Your task to perform on an android device: Open CNN.com Image 0: 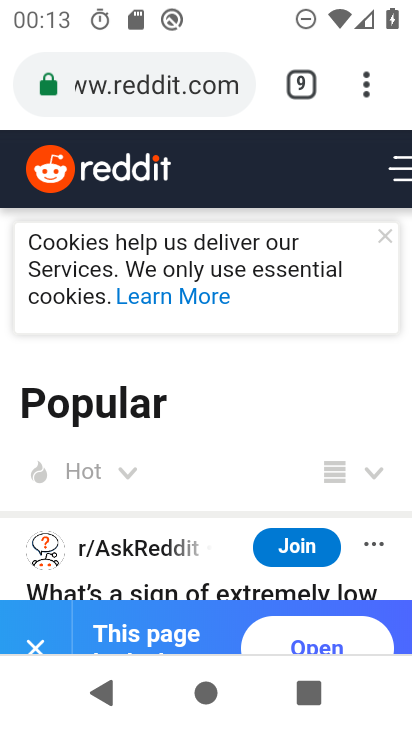
Step 0: click (312, 95)
Your task to perform on an android device: Open CNN.com Image 1: 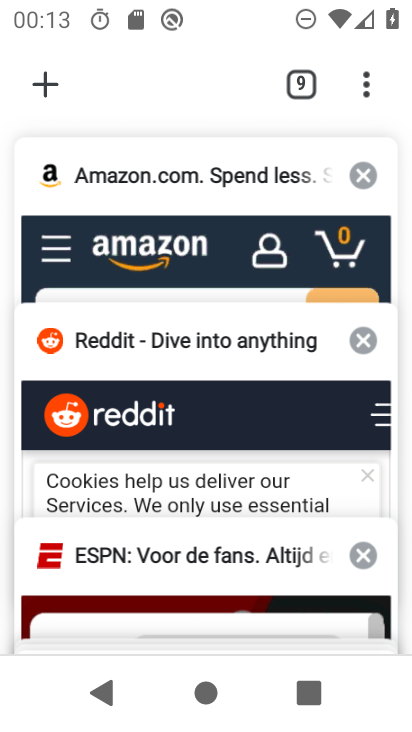
Step 1: drag from (142, 267) to (147, 501)
Your task to perform on an android device: Open CNN.com Image 2: 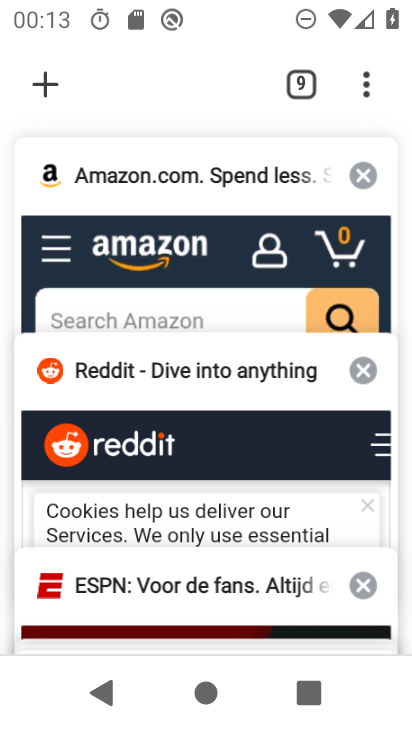
Step 2: drag from (152, 300) to (182, 509)
Your task to perform on an android device: Open CNN.com Image 3: 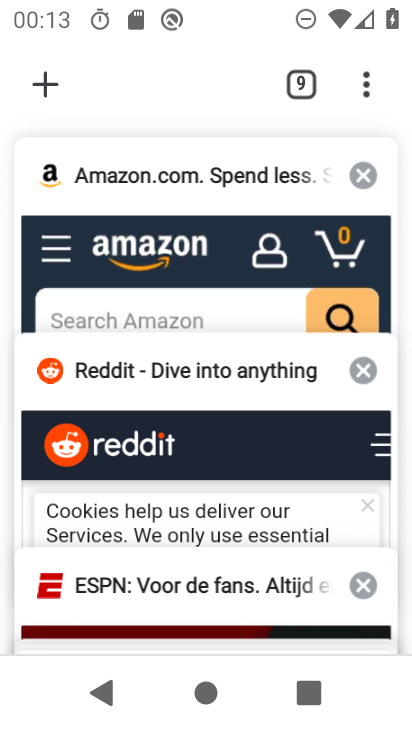
Step 3: drag from (160, 277) to (166, 489)
Your task to perform on an android device: Open CNN.com Image 4: 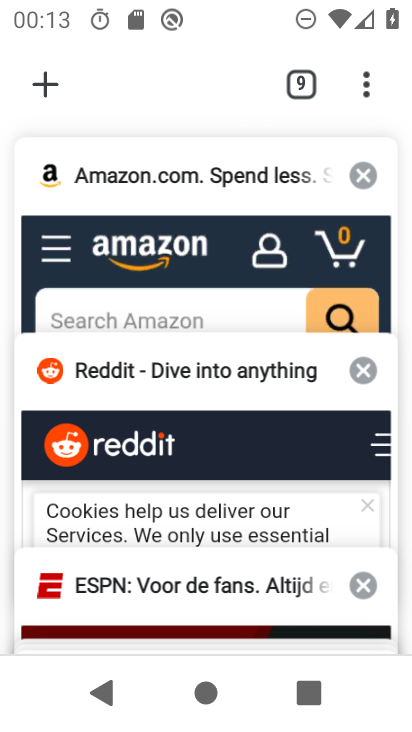
Step 4: drag from (156, 260) to (158, 468)
Your task to perform on an android device: Open CNN.com Image 5: 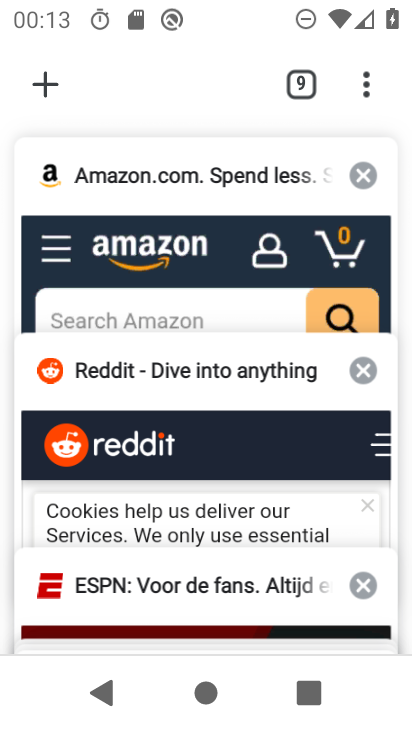
Step 5: drag from (152, 250) to (190, 466)
Your task to perform on an android device: Open CNN.com Image 6: 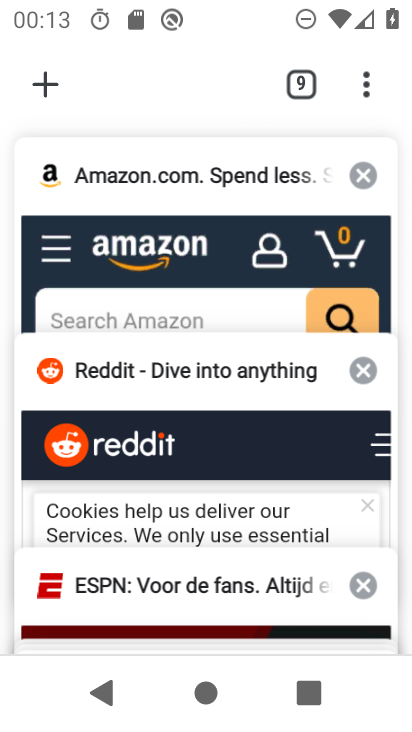
Step 6: drag from (161, 236) to (175, 466)
Your task to perform on an android device: Open CNN.com Image 7: 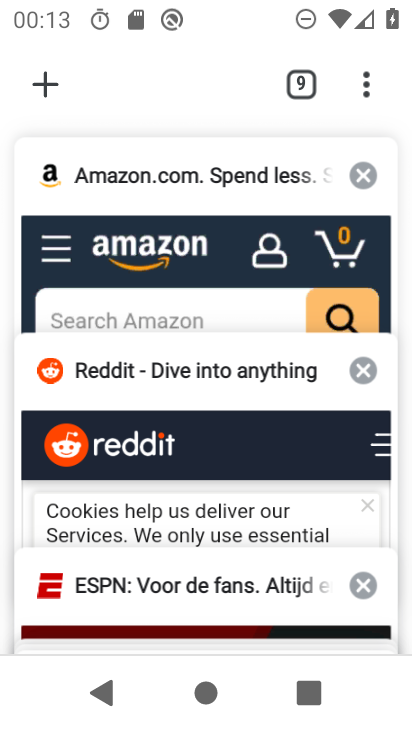
Step 7: drag from (172, 501) to (156, 269)
Your task to perform on an android device: Open CNN.com Image 8: 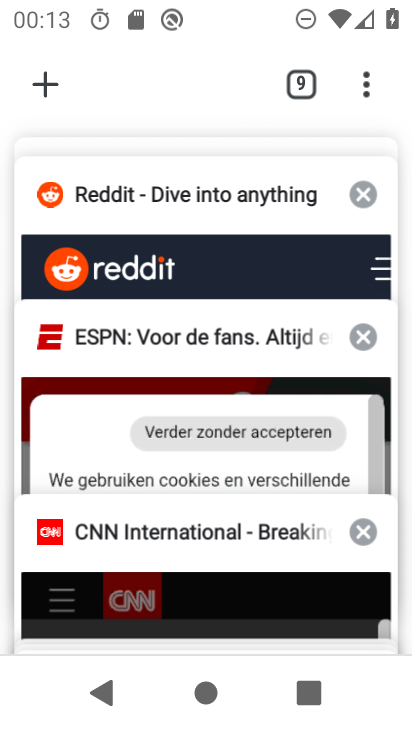
Step 8: drag from (151, 498) to (140, 276)
Your task to perform on an android device: Open CNN.com Image 9: 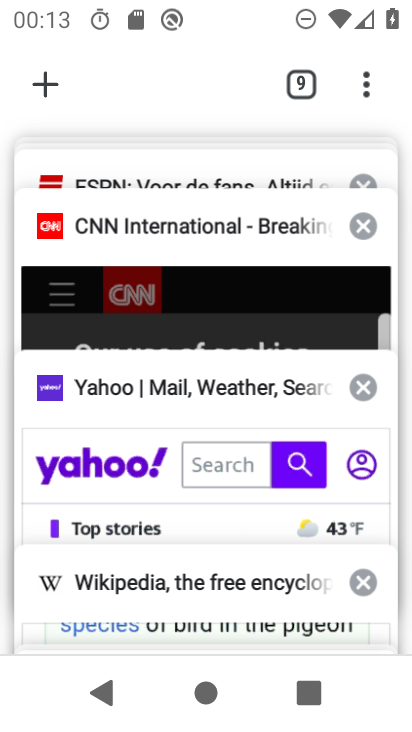
Step 9: drag from (157, 228) to (168, 493)
Your task to perform on an android device: Open CNN.com Image 10: 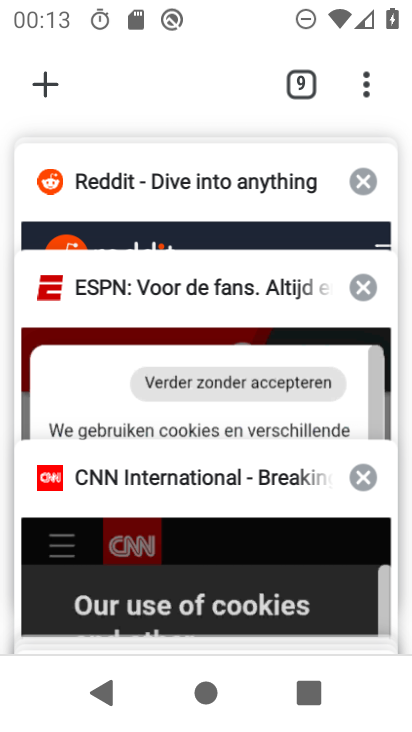
Step 10: drag from (156, 277) to (184, 240)
Your task to perform on an android device: Open CNN.com Image 11: 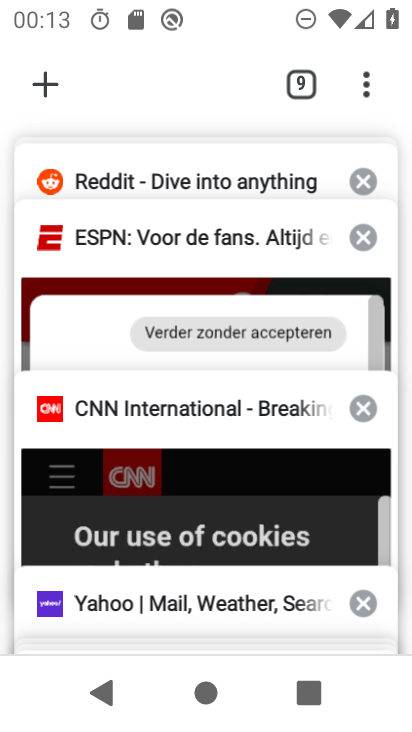
Step 11: click (156, 419)
Your task to perform on an android device: Open CNN.com Image 12: 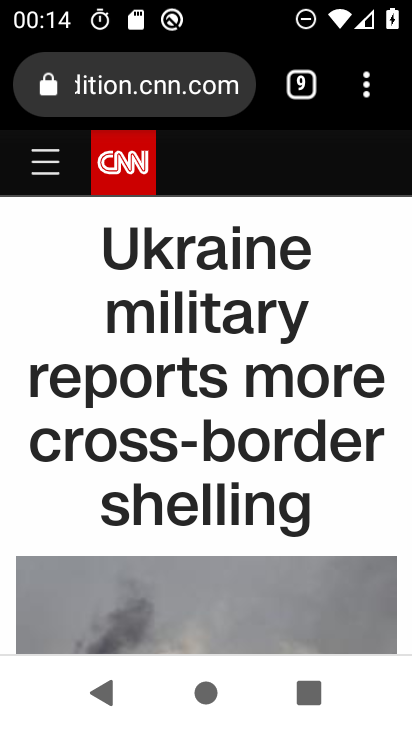
Step 12: task complete